Your task to perform on an android device: Open ESPN.com Image 0: 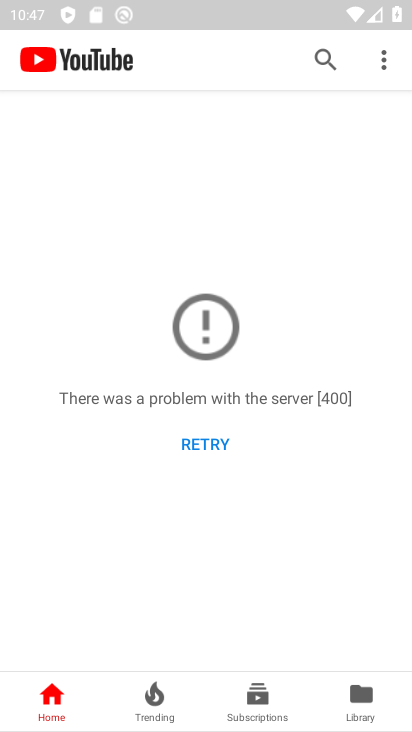
Step 0: press back button
Your task to perform on an android device: Open ESPN.com Image 1: 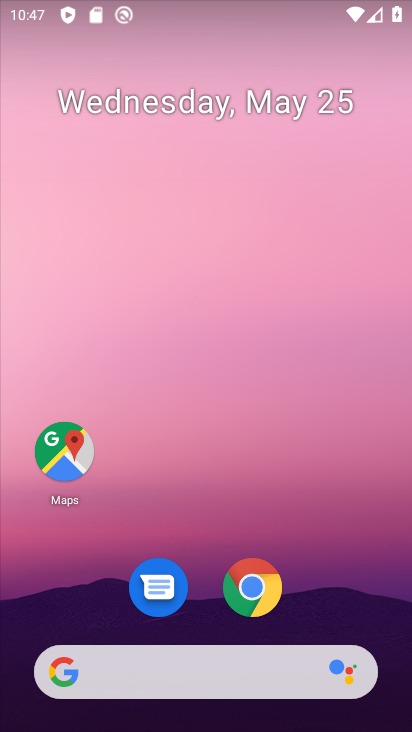
Step 1: drag from (326, 560) to (208, 52)
Your task to perform on an android device: Open ESPN.com Image 2: 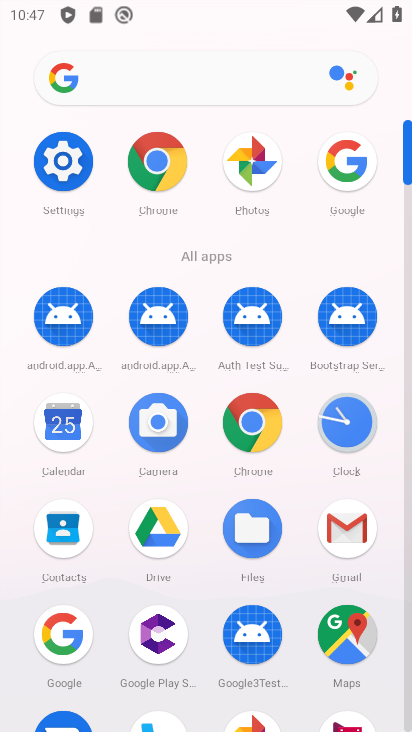
Step 2: click (155, 154)
Your task to perform on an android device: Open ESPN.com Image 3: 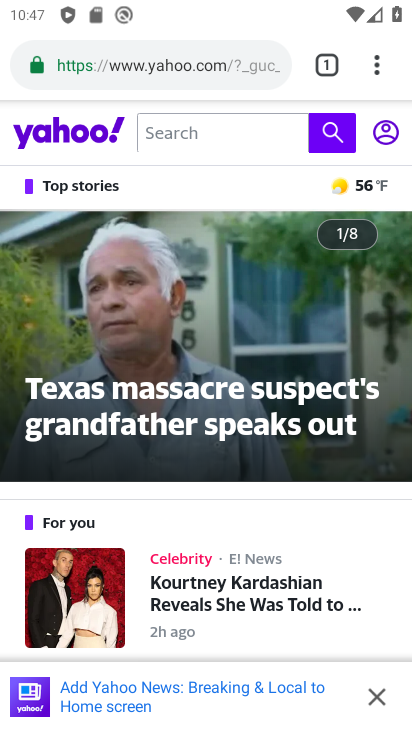
Step 3: click (167, 65)
Your task to perform on an android device: Open ESPN.com Image 4: 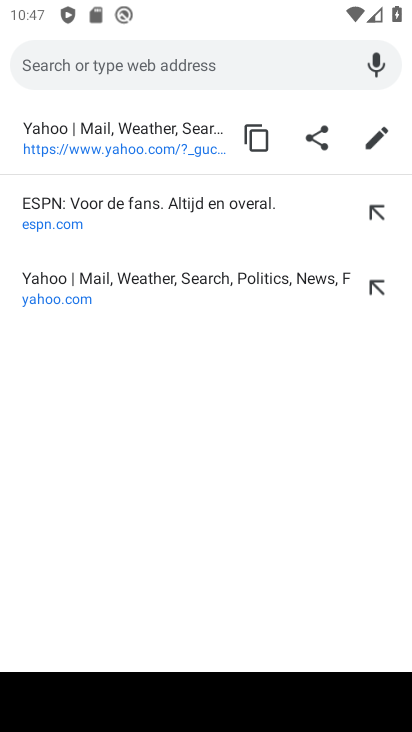
Step 4: click (112, 219)
Your task to perform on an android device: Open ESPN.com Image 5: 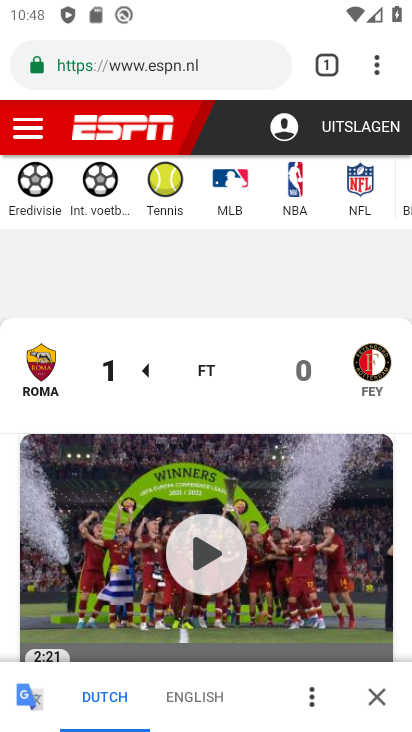
Step 5: task complete